Your task to perform on an android device: Open calendar and show me the second week of next month Image 0: 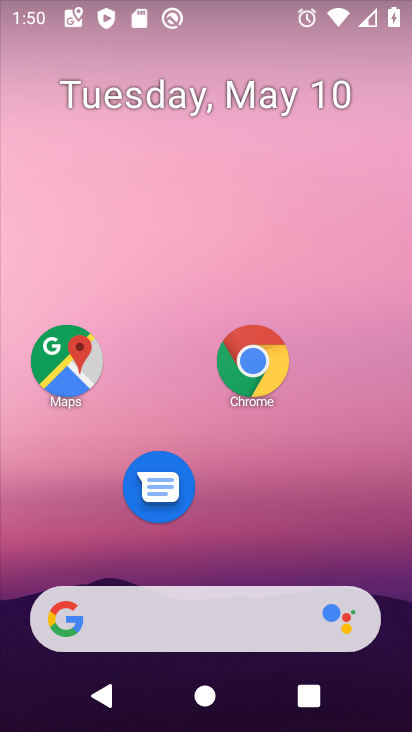
Step 0: drag from (379, 563) to (302, 6)
Your task to perform on an android device: Open calendar and show me the second week of next month Image 1: 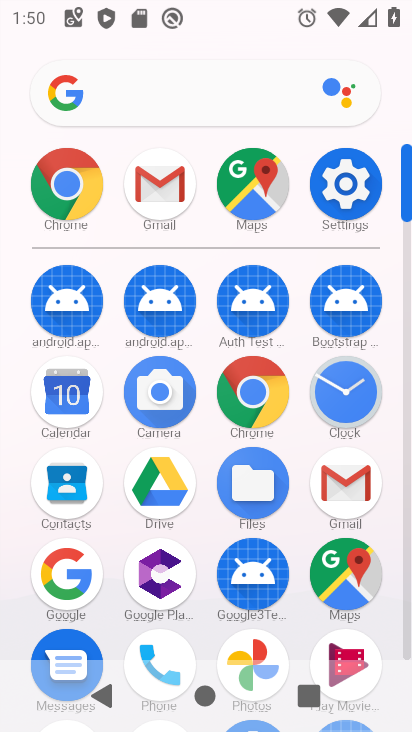
Step 1: click (75, 423)
Your task to perform on an android device: Open calendar and show me the second week of next month Image 2: 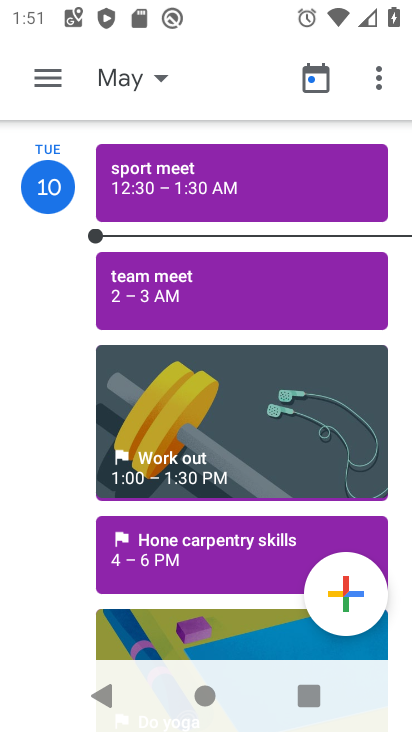
Step 2: click (129, 71)
Your task to perform on an android device: Open calendar and show me the second week of next month Image 3: 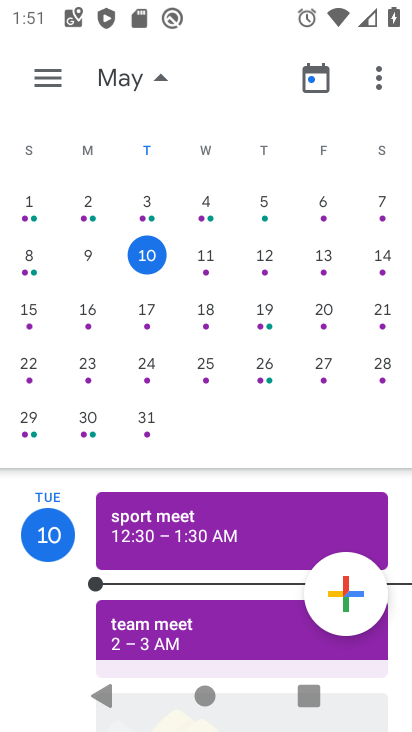
Step 3: drag from (378, 296) to (35, 321)
Your task to perform on an android device: Open calendar and show me the second week of next month Image 4: 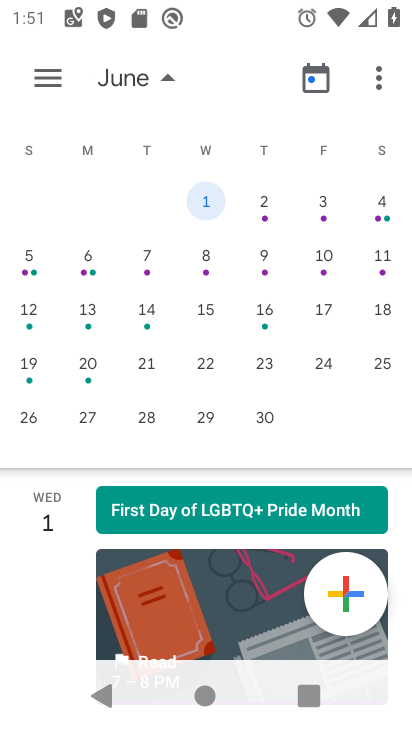
Step 4: click (203, 314)
Your task to perform on an android device: Open calendar and show me the second week of next month Image 5: 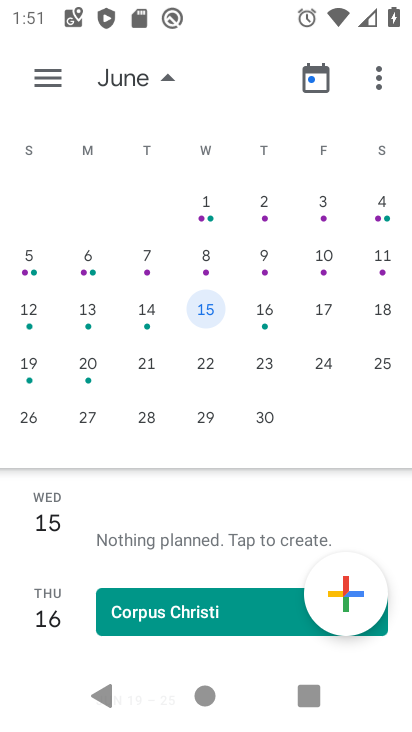
Step 5: task complete